Your task to perform on an android device: turn on notifications settings in the gmail app Image 0: 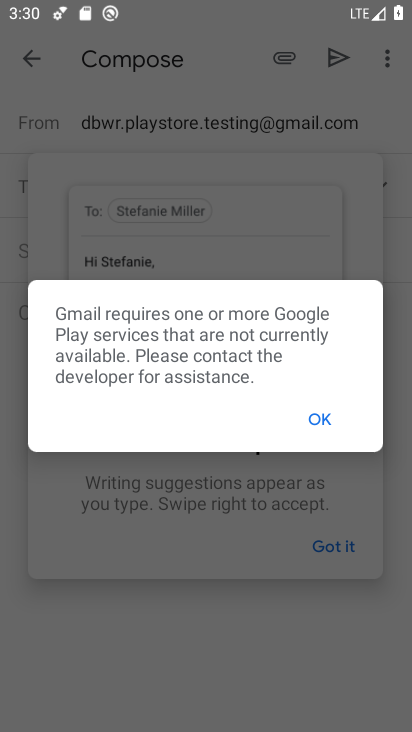
Step 0: press home button
Your task to perform on an android device: turn on notifications settings in the gmail app Image 1: 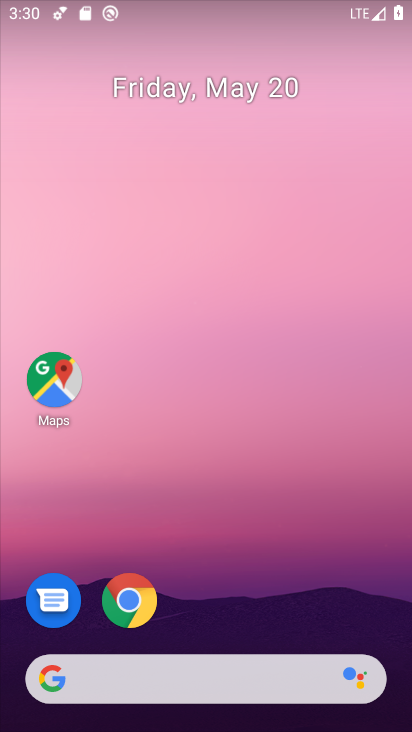
Step 1: drag from (371, 621) to (331, 197)
Your task to perform on an android device: turn on notifications settings in the gmail app Image 2: 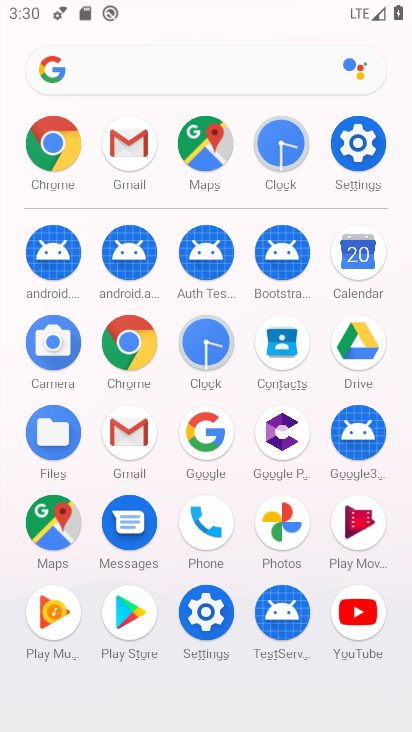
Step 2: click (128, 459)
Your task to perform on an android device: turn on notifications settings in the gmail app Image 3: 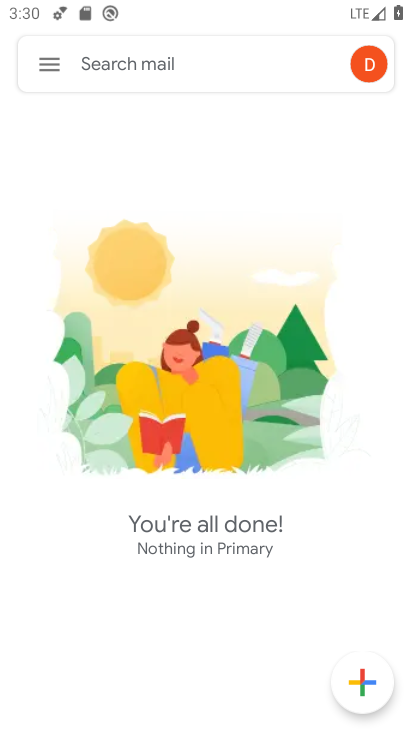
Step 3: click (46, 66)
Your task to perform on an android device: turn on notifications settings in the gmail app Image 4: 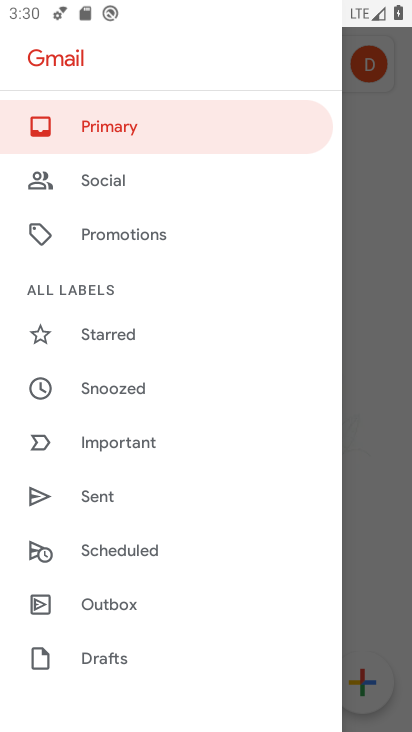
Step 4: drag from (276, 551) to (274, 443)
Your task to perform on an android device: turn on notifications settings in the gmail app Image 5: 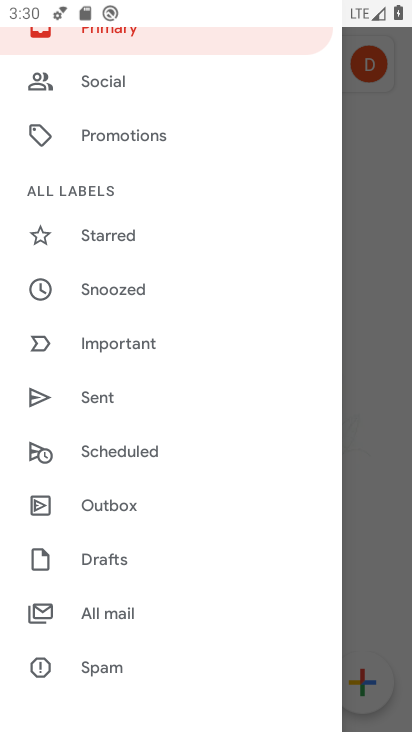
Step 5: drag from (257, 592) to (254, 459)
Your task to perform on an android device: turn on notifications settings in the gmail app Image 6: 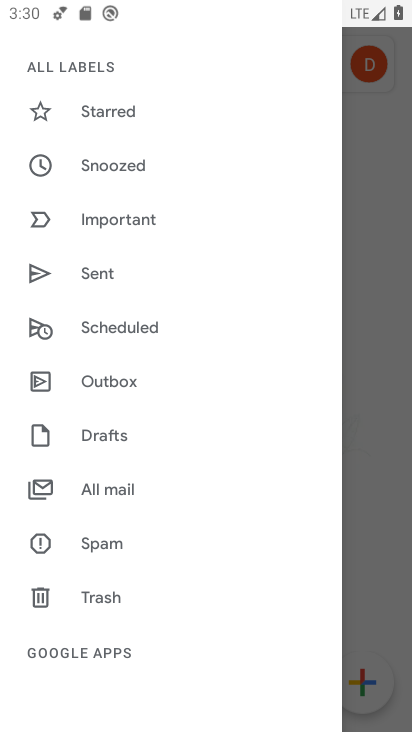
Step 6: drag from (233, 623) to (232, 483)
Your task to perform on an android device: turn on notifications settings in the gmail app Image 7: 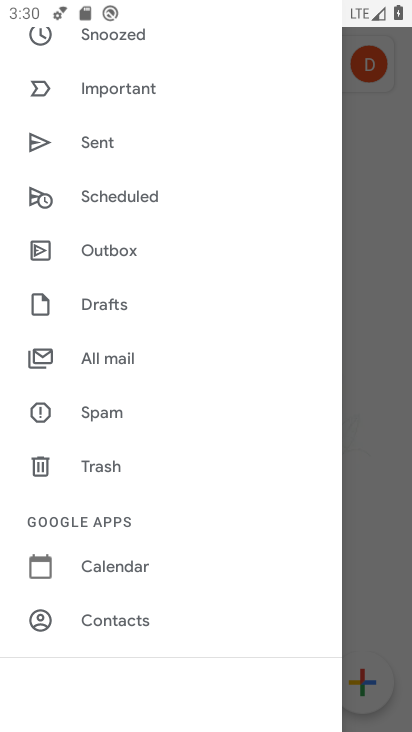
Step 7: drag from (244, 647) to (246, 489)
Your task to perform on an android device: turn on notifications settings in the gmail app Image 8: 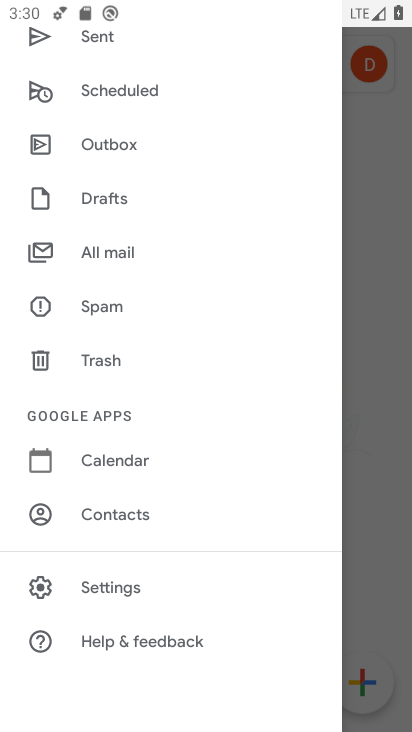
Step 8: drag from (259, 648) to (261, 535)
Your task to perform on an android device: turn on notifications settings in the gmail app Image 9: 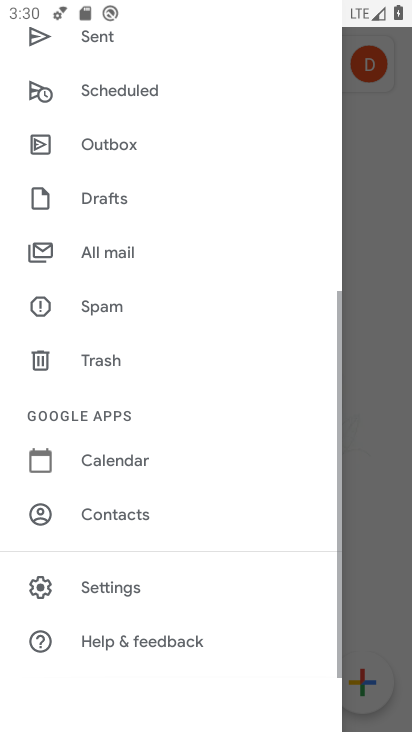
Step 9: click (146, 583)
Your task to perform on an android device: turn on notifications settings in the gmail app Image 10: 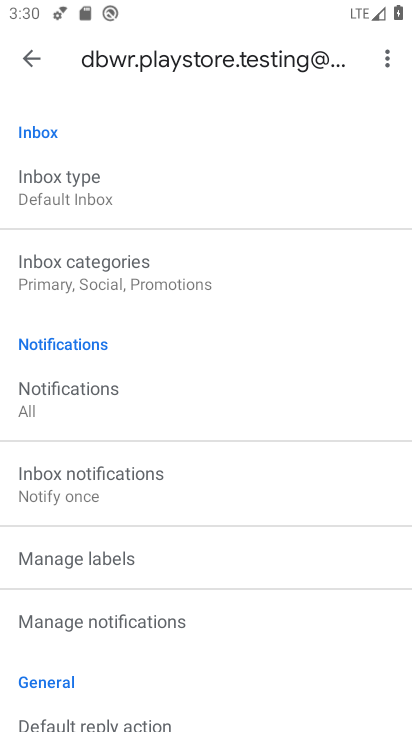
Step 10: drag from (294, 535) to (296, 399)
Your task to perform on an android device: turn on notifications settings in the gmail app Image 11: 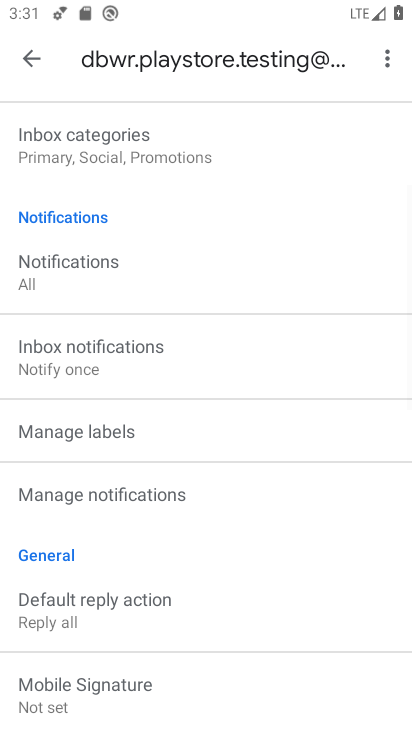
Step 11: drag from (298, 583) to (298, 457)
Your task to perform on an android device: turn on notifications settings in the gmail app Image 12: 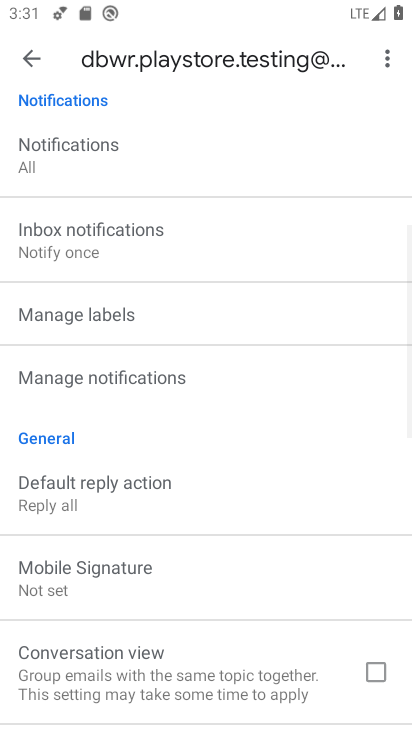
Step 12: drag from (299, 624) to (305, 497)
Your task to perform on an android device: turn on notifications settings in the gmail app Image 13: 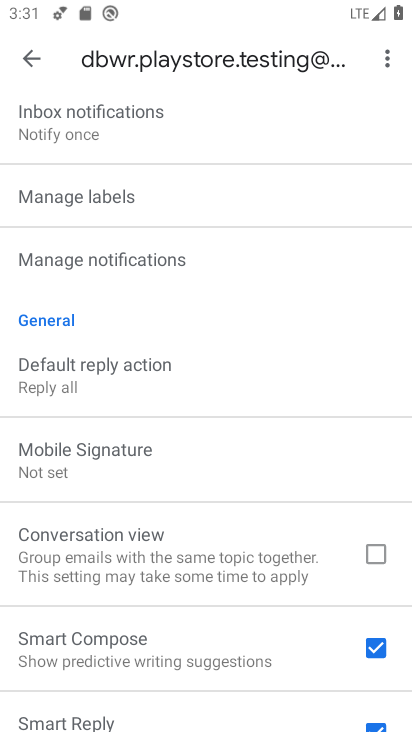
Step 13: drag from (289, 642) to (303, 548)
Your task to perform on an android device: turn on notifications settings in the gmail app Image 14: 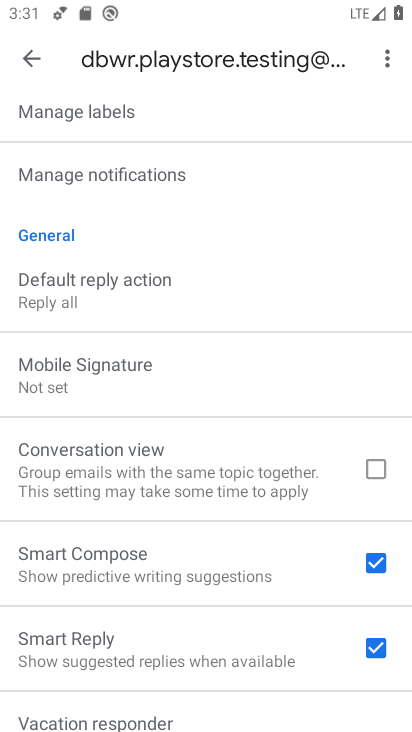
Step 14: drag from (304, 683) to (304, 586)
Your task to perform on an android device: turn on notifications settings in the gmail app Image 15: 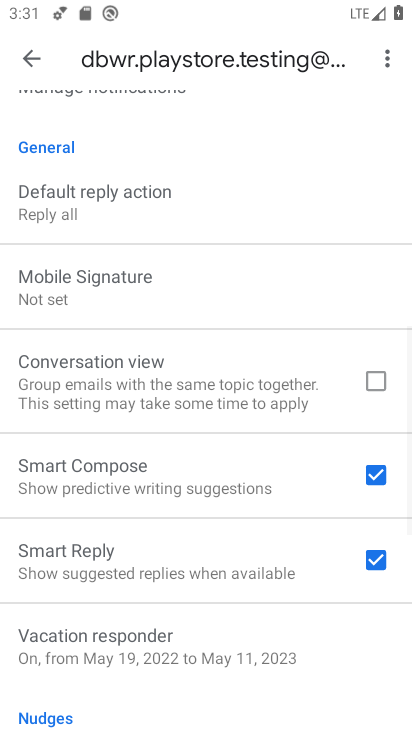
Step 15: drag from (304, 687) to (305, 568)
Your task to perform on an android device: turn on notifications settings in the gmail app Image 16: 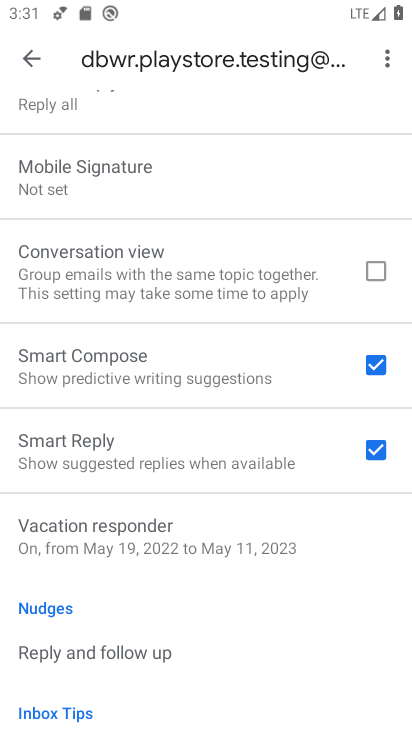
Step 16: drag from (308, 674) to (307, 551)
Your task to perform on an android device: turn on notifications settings in the gmail app Image 17: 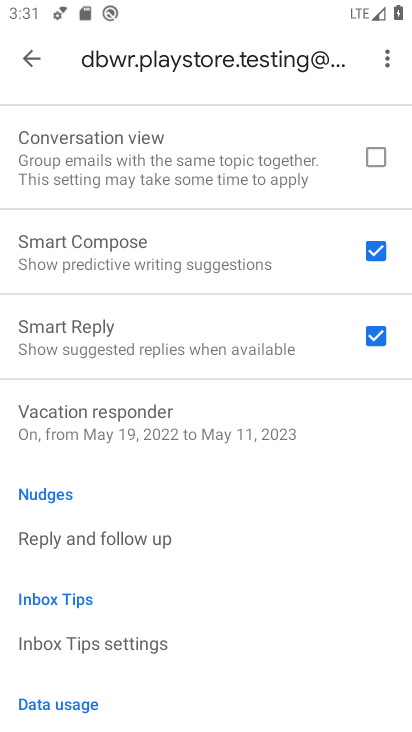
Step 17: drag from (315, 434) to (321, 526)
Your task to perform on an android device: turn on notifications settings in the gmail app Image 18: 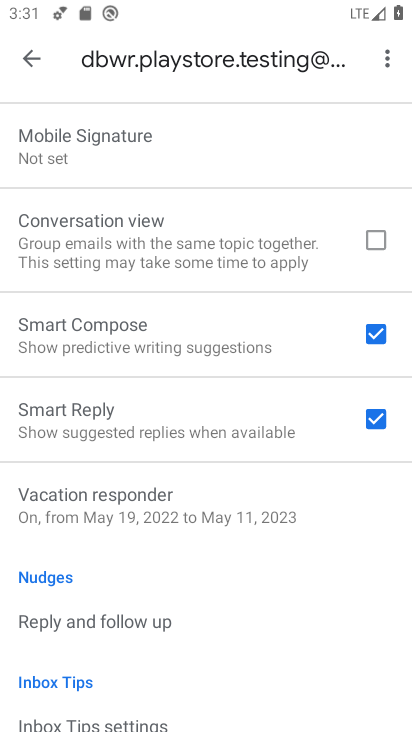
Step 18: drag from (318, 422) to (318, 518)
Your task to perform on an android device: turn on notifications settings in the gmail app Image 19: 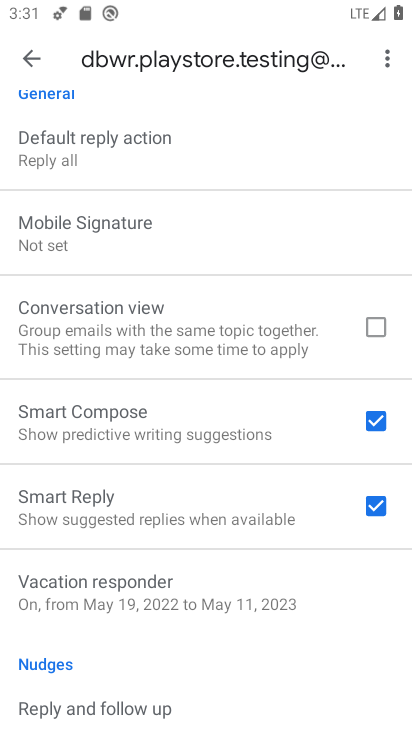
Step 19: drag from (312, 401) to (321, 527)
Your task to perform on an android device: turn on notifications settings in the gmail app Image 20: 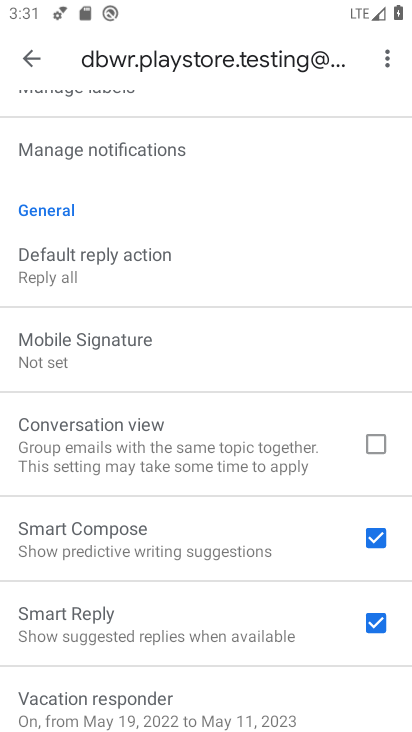
Step 20: drag from (314, 391) to (313, 472)
Your task to perform on an android device: turn on notifications settings in the gmail app Image 21: 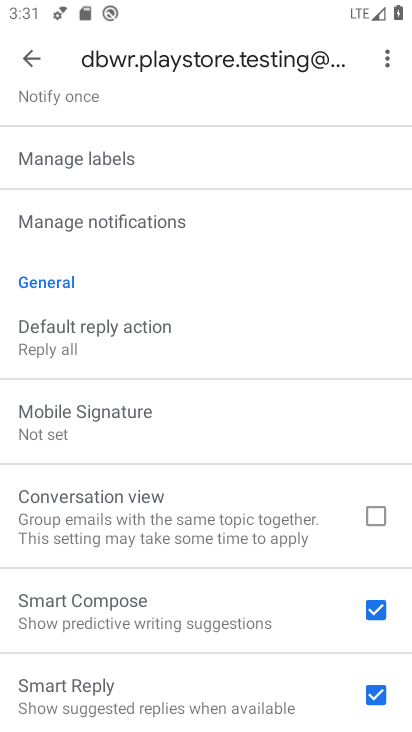
Step 21: drag from (302, 374) to (303, 486)
Your task to perform on an android device: turn on notifications settings in the gmail app Image 22: 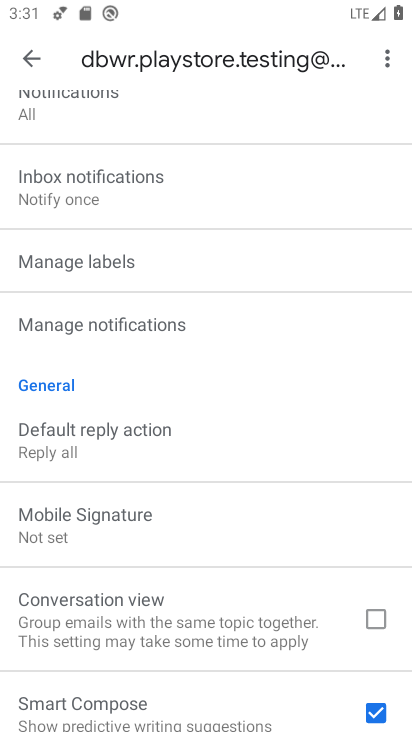
Step 22: drag from (272, 404) to (272, 478)
Your task to perform on an android device: turn on notifications settings in the gmail app Image 23: 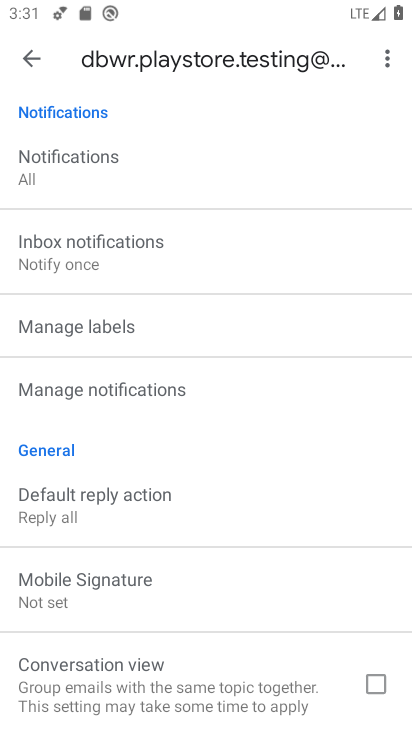
Step 23: click (211, 399)
Your task to perform on an android device: turn on notifications settings in the gmail app Image 24: 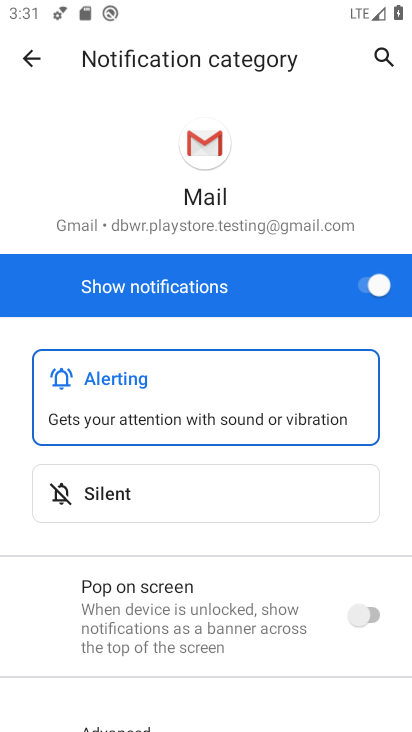
Step 24: task complete